Your task to perform on an android device: Open calendar and show me the second week of next month Image 0: 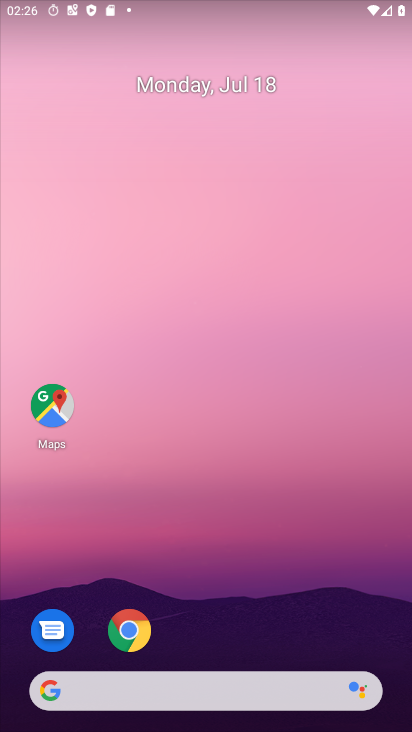
Step 0: click (190, 96)
Your task to perform on an android device: Open calendar and show me the second week of next month Image 1: 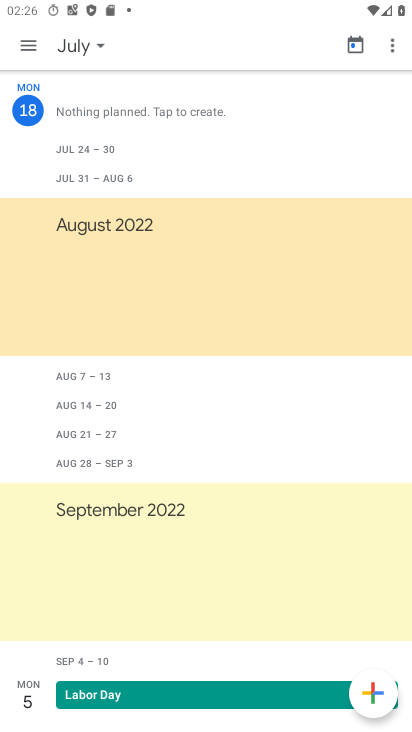
Step 1: click (35, 50)
Your task to perform on an android device: Open calendar and show me the second week of next month Image 2: 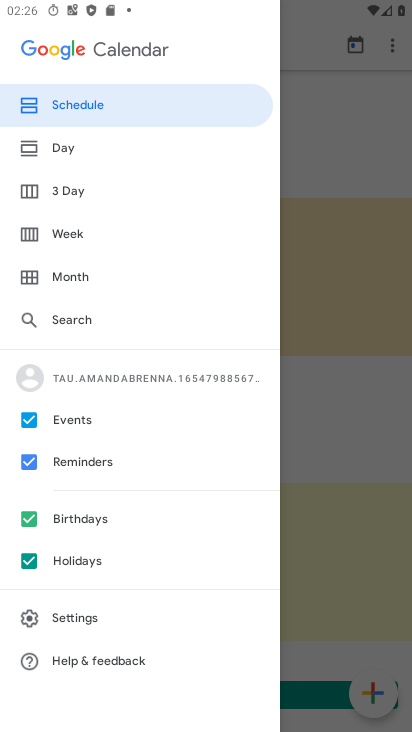
Step 2: task complete